Your task to perform on an android device: Open internet settings Image 0: 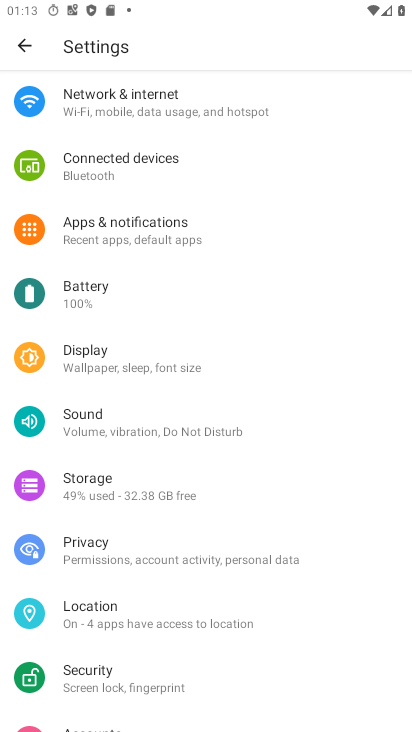
Step 0: click (101, 111)
Your task to perform on an android device: Open internet settings Image 1: 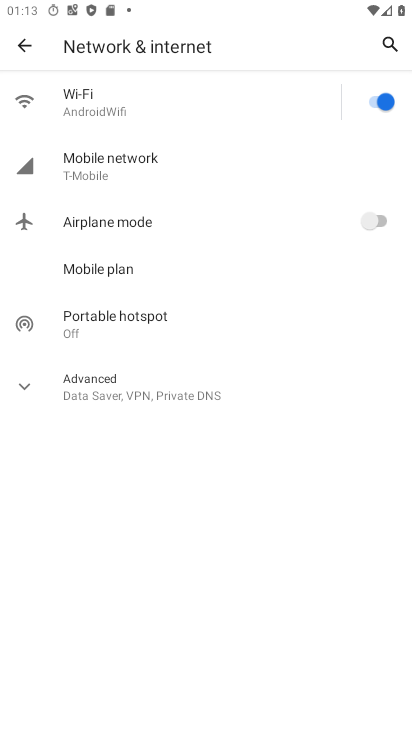
Step 1: task complete